Your task to perform on an android device: read, delete, or share a saved page in the chrome app Image 0: 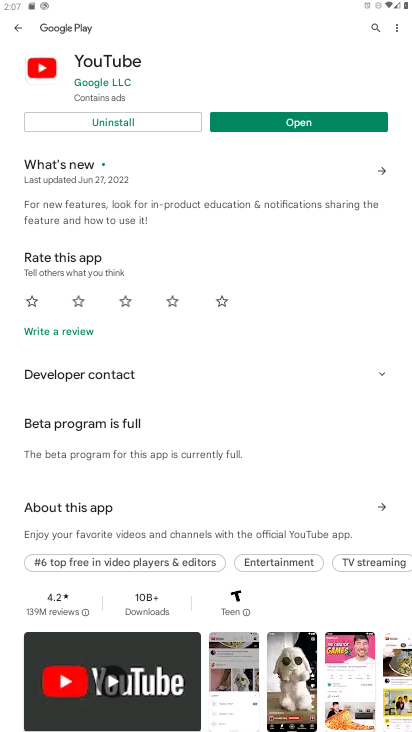
Step 0: press home button
Your task to perform on an android device: read, delete, or share a saved page in the chrome app Image 1: 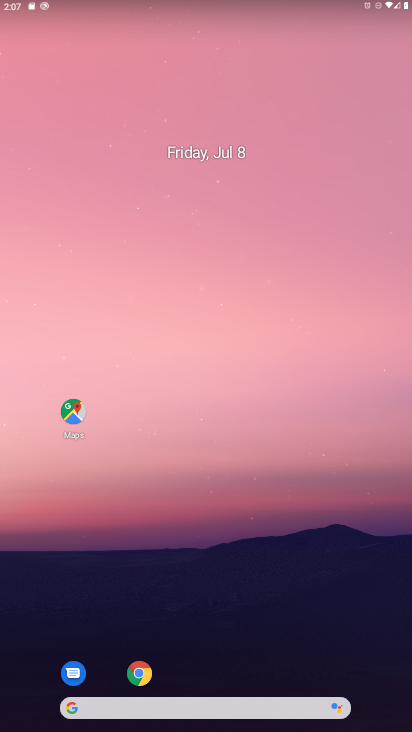
Step 1: drag from (372, 667) to (335, 84)
Your task to perform on an android device: read, delete, or share a saved page in the chrome app Image 2: 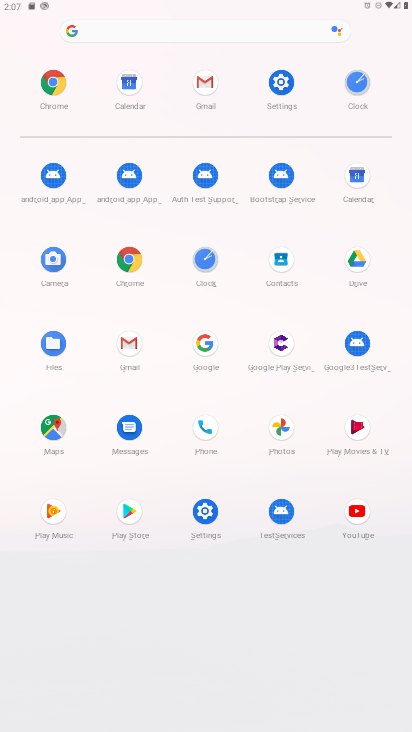
Step 2: click (122, 262)
Your task to perform on an android device: read, delete, or share a saved page in the chrome app Image 3: 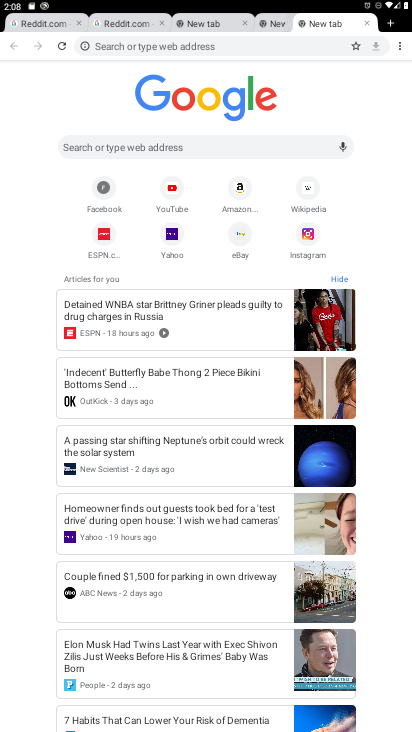
Step 3: click (401, 46)
Your task to perform on an android device: read, delete, or share a saved page in the chrome app Image 4: 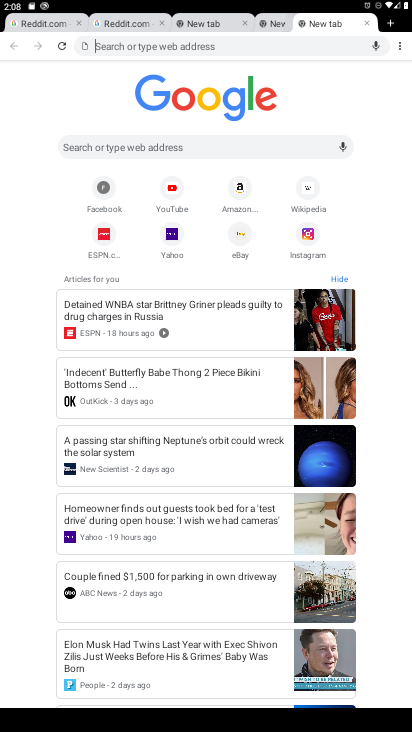
Step 4: click (398, 46)
Your task to perform on an android device: read, delete, or share a saved page in the chrome app Image 5: 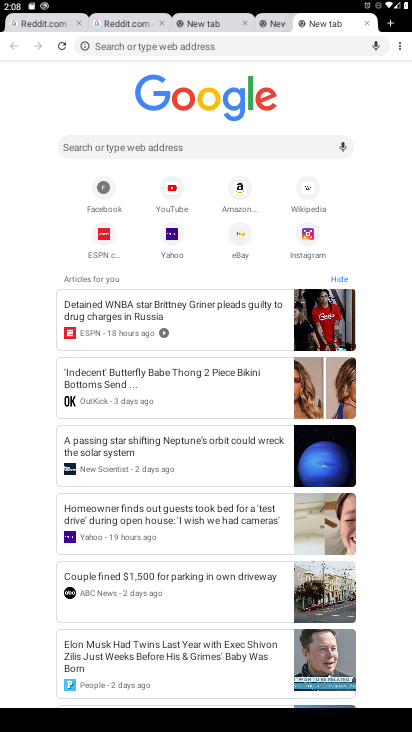
Step 5: click (398, 46)
Your task to perform on an android device: read, delete, or share a saved page in the chrome app Image 6: 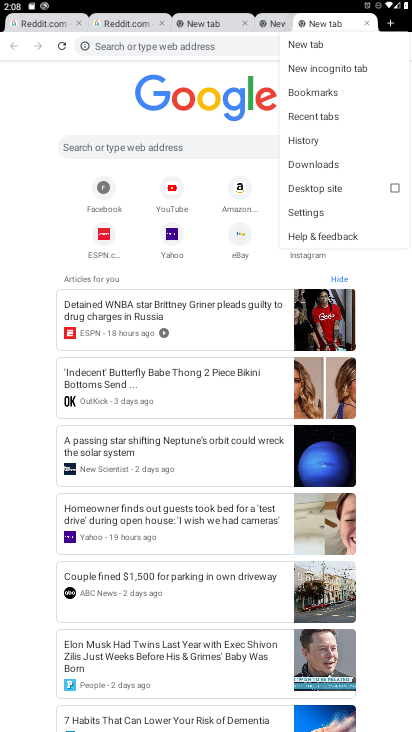
Step 6: click (297, 163)
Your task to perform on an android device: read, delete, or share a saved page in the chrome app Image 7: 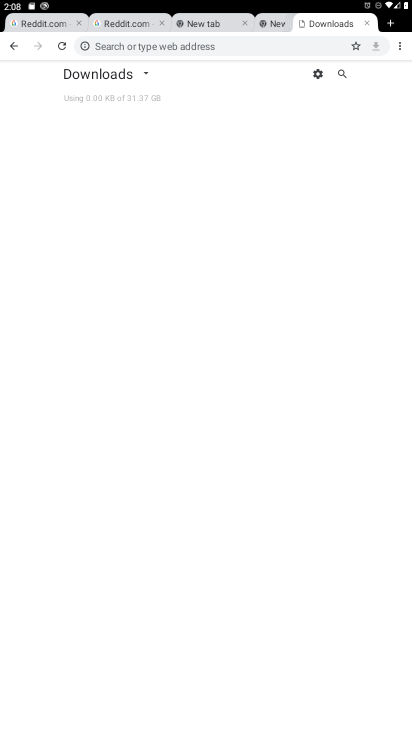
Step 7: task complete